Your task to perform on an android device: change the upload size in google photos Image 0: 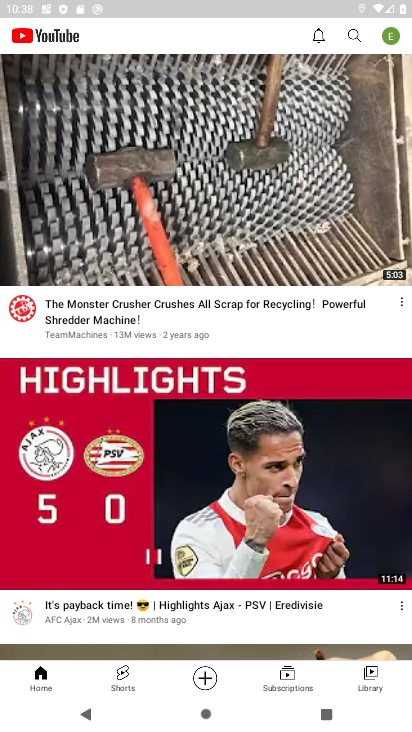
Step 0: press home button
Your task to perform on an android device: change the upload size in google photos Image 1: 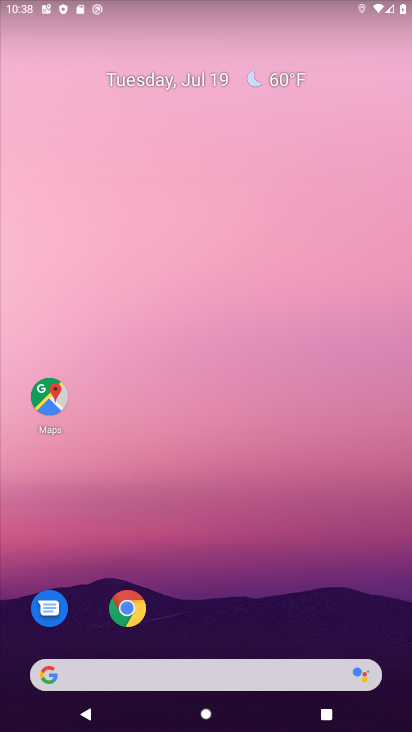
Step 1: drag from (220, 633) to (143, 58)
Your task to perform on an android device: change the upload size in google photos Image 2: 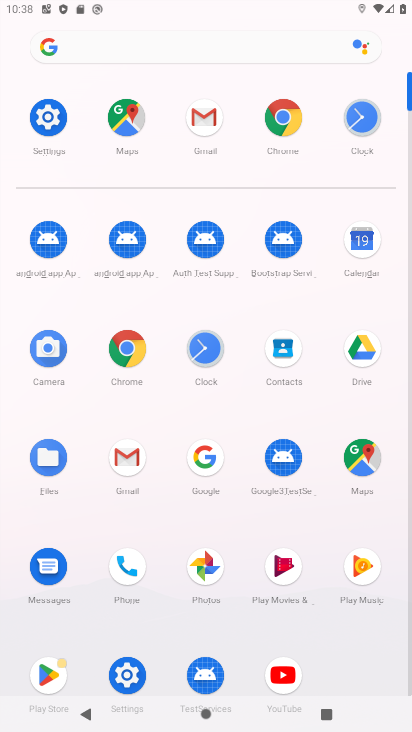
Step 2: click (215, 574)
Your task to perform on an android device: change the upload size in google photos Image 3: 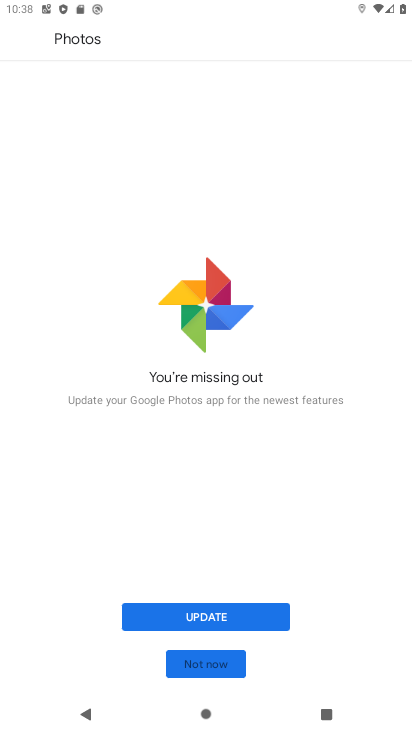
Step 3: click (189, 609)
Your task to perform on an android device: change the upload size in google photos Image 4: 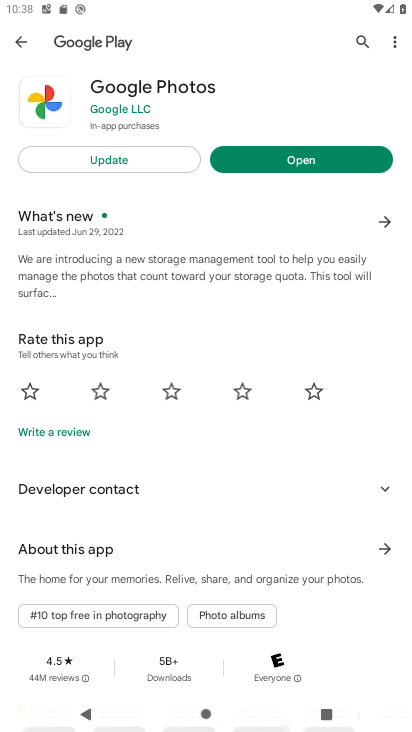
Step 4: click (128, 161)
Your task to perform on an android device: change the upload size in google photos Image 5: 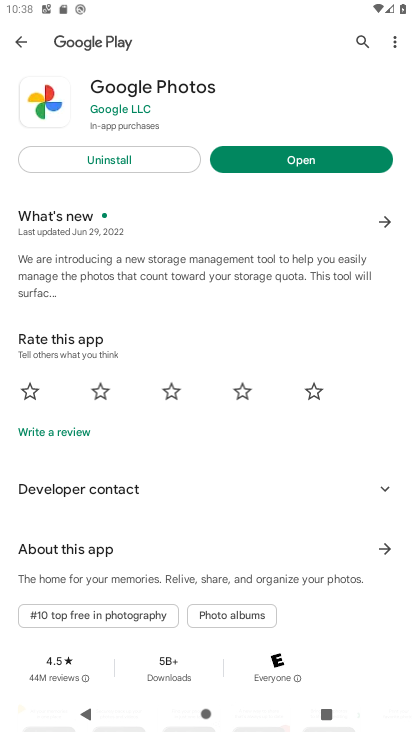
Step 5: click (291, 162)
Your task to perform on an android device: change the upload size in google photos Image 6: 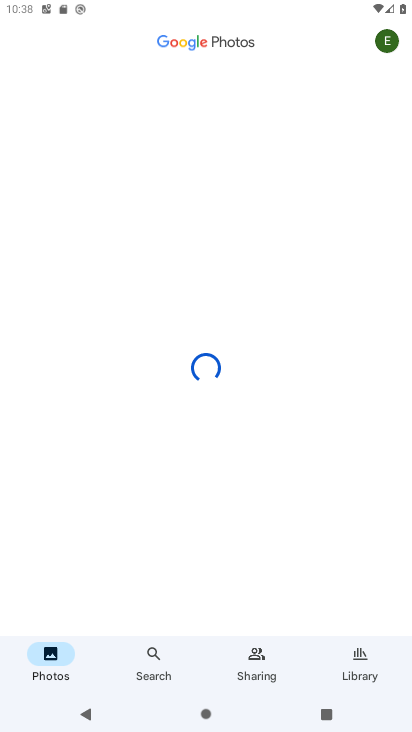
Step 6: click (385, 43)
Your task to perform on an android device: change the upload size in google photos Image 7: 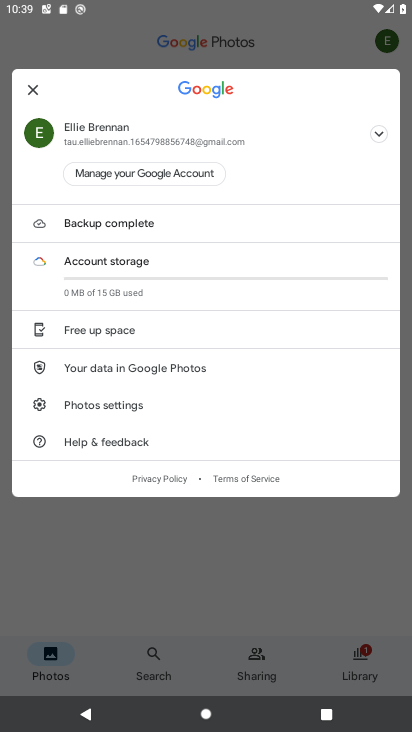
Step 7: click (79, 403)
Your task to perform on an android device: change the upload size in google photos Image 8: 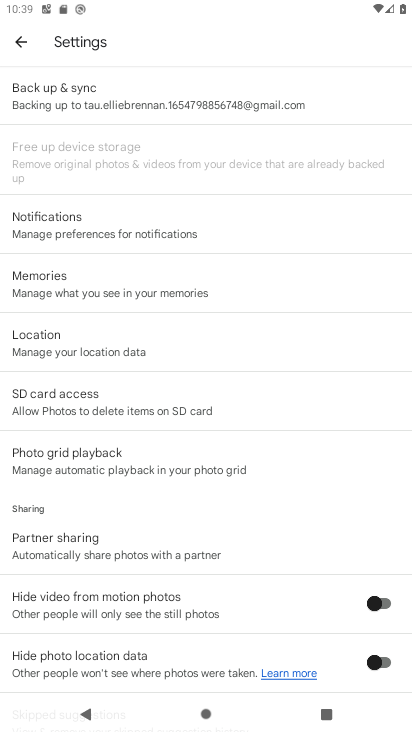
Step 8: click (53, 92)
Your task to perform on an android device: change the upload size in google photos Image 9: 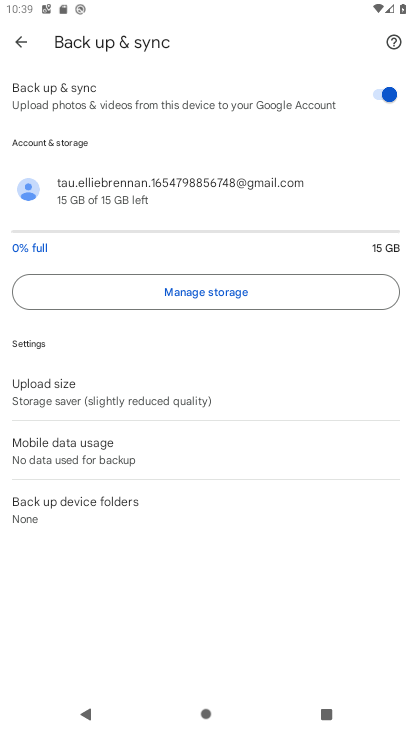
Step 9: click (52, 377)
Your task to perform on an android device: change the upload size in google photos Image 10: 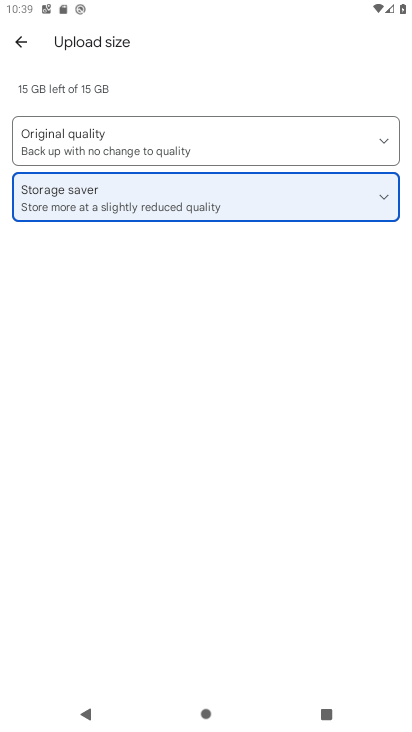
Step 10: click (65, 154)
Your task to perform on an android device: change the upload size in google photos Image 11: 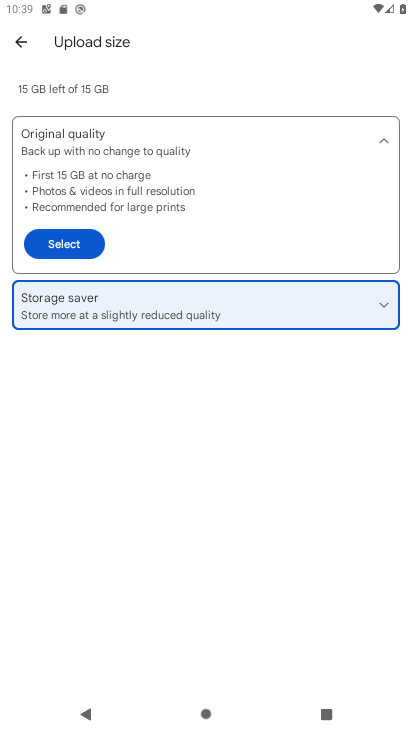
Step 11: click (67, 237)
Your task to perform on an android device: change the upload size in google photos Image 12: 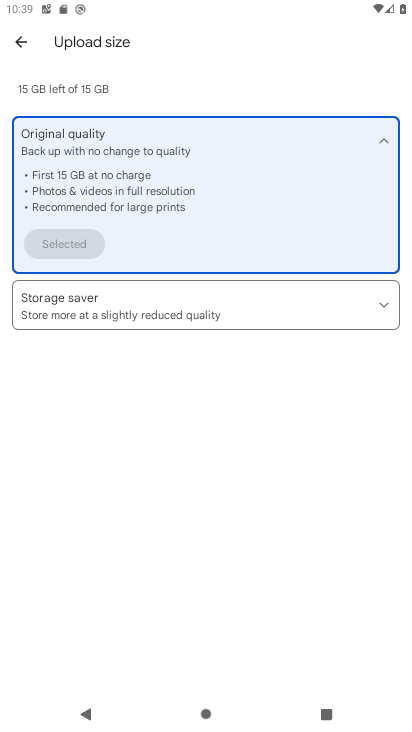
Step 12: task complete